Your task to perform on an android device: change timer sound Image 0: 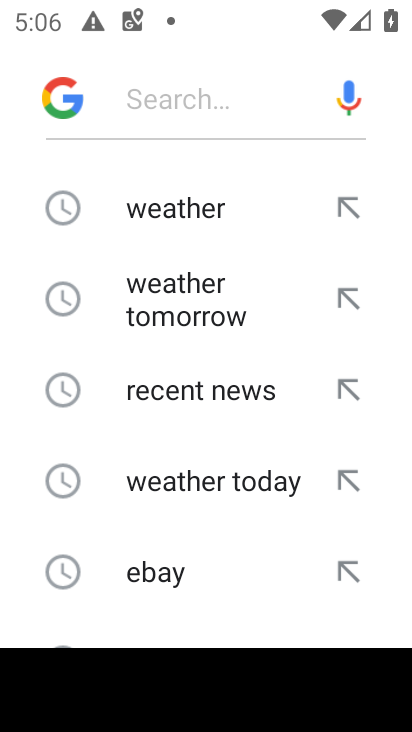
Step 0: press home button
Your task to perform on an android device: change timer sound Image 1: 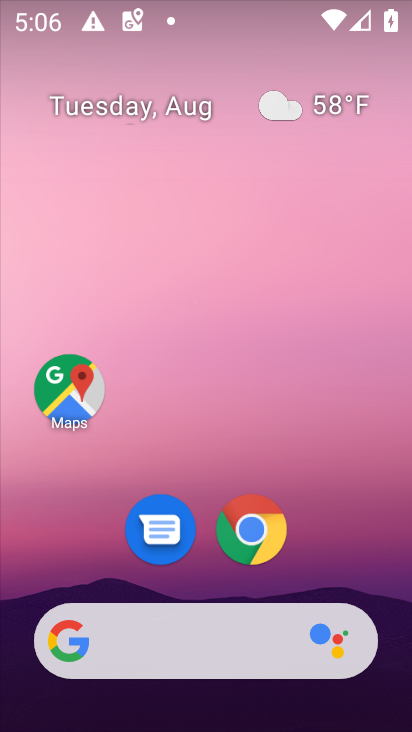
Step 1: drag from (195, 476) to (191, 144)
Your task to perform on an android device: change timer sound Image 2: 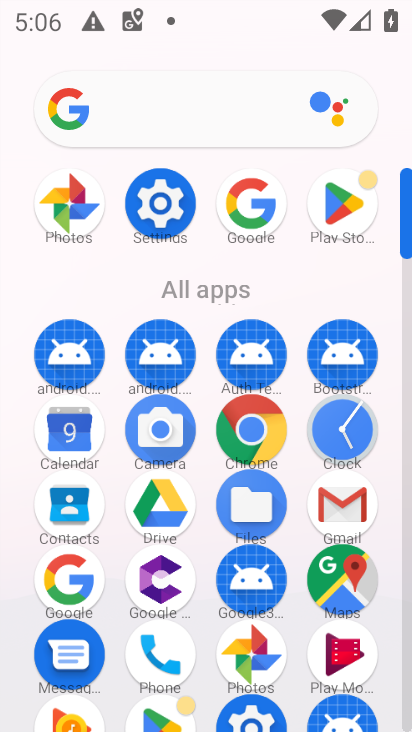
Step 2: click (333, 432)
Your task to perform on an android device: change timer sound Image 3: 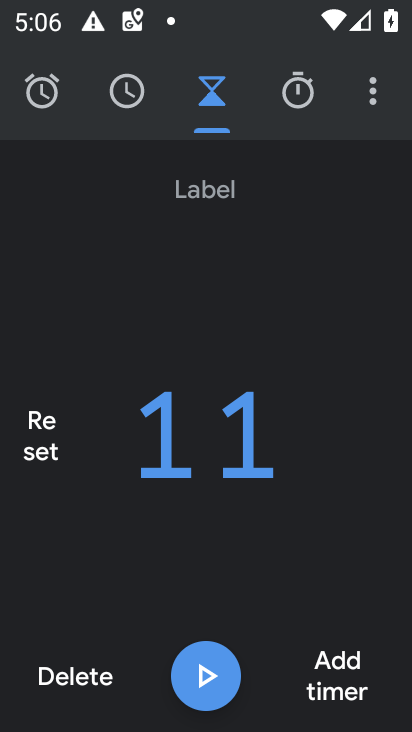
Step 3: click (374, 79)
Your task to perform on an android device: change timer sound Image 4: 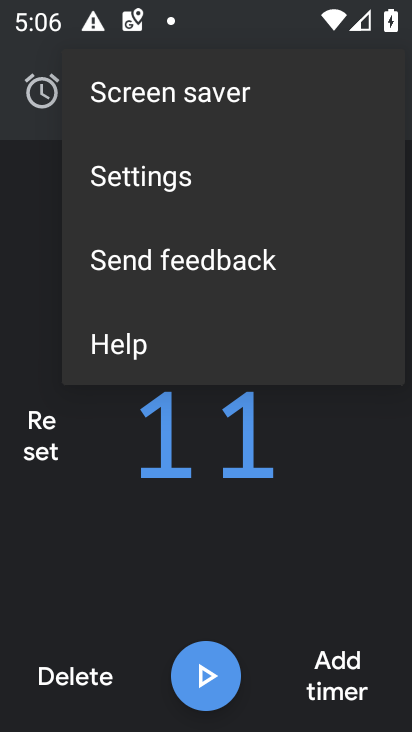
Step 4: click (203, 185)
Your task to perform on an android device: change timer sound Image 5: 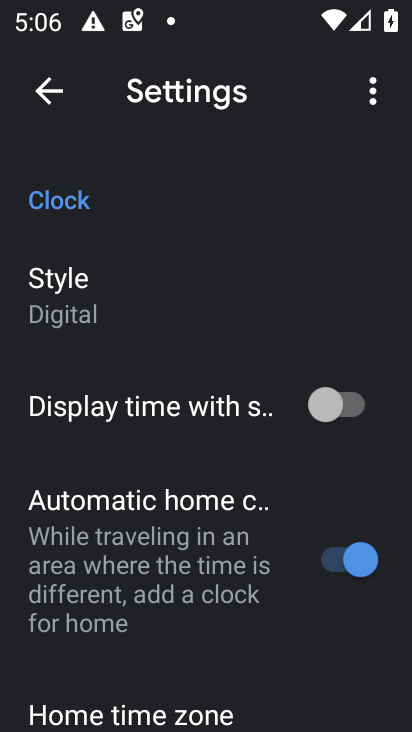
Step 5: drag from (84, 685) to (87, 255)
Your task to perform on an android device: change timer sound Image 6: 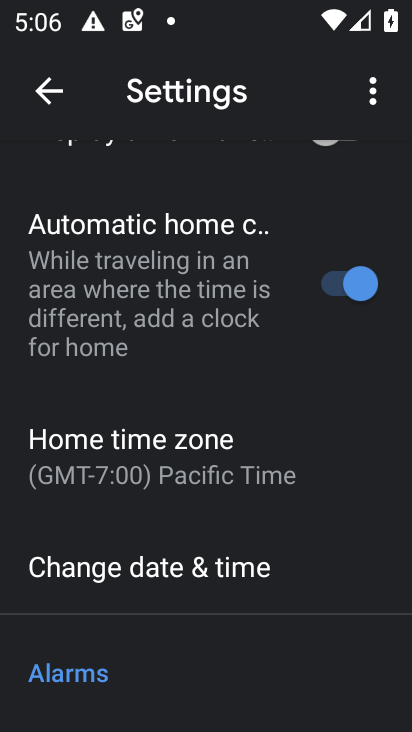
Step 6: drag from (207, 591) to (184, 121)
Your task to perform on an android device: change timer sound Image 7: 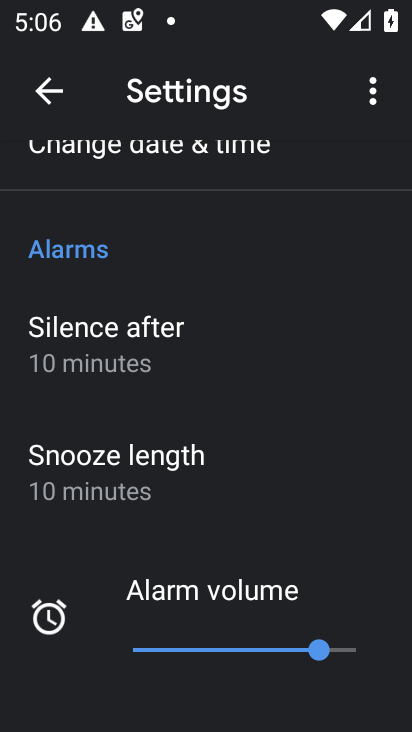
Step 7: drag from (184, 589) to (189, 249)
Your task to perform on an android device: change timer sound Image 8: 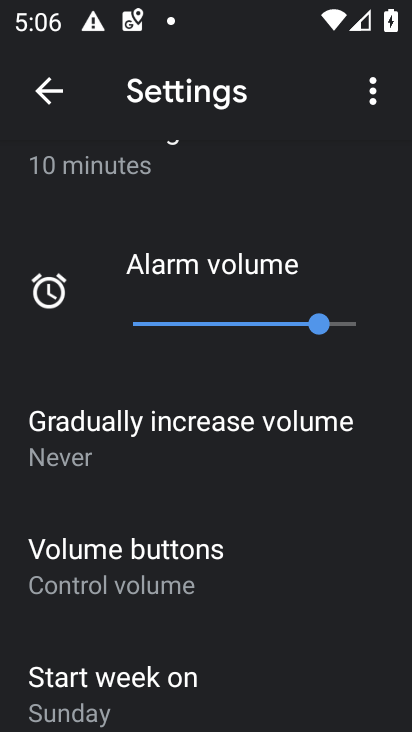
Step 8: drag from (196, 614) to (187, 183)
Your task to perform on an android device: change timer sound Image 9: 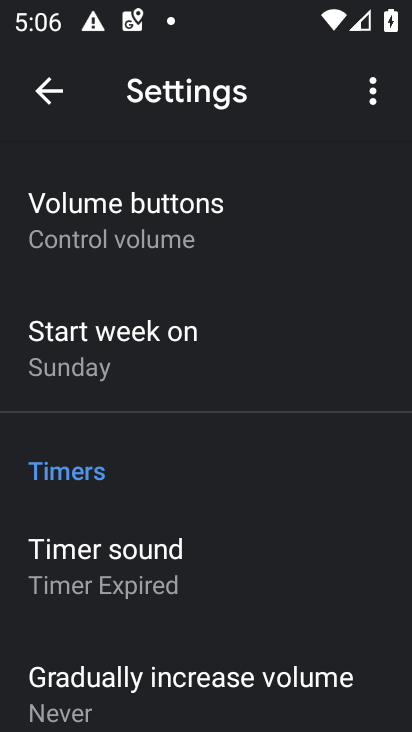
Step 9: click (159, 570)
Your task to perform on an android device: change timer sound Image 10: 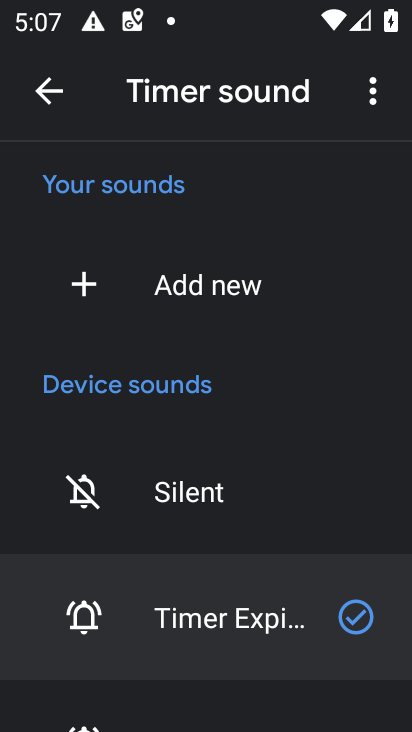
Step 10: drag from (174, 599) to (184, 221)
Your task to perform on an android device: change timer sound Image 11: 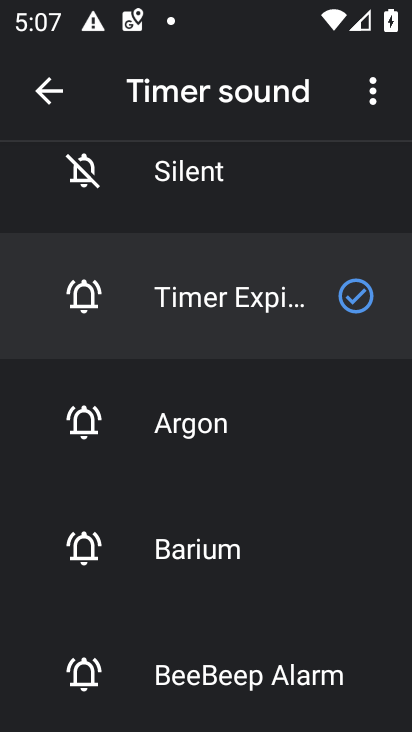
Step 11: click (210, 593)
Your task to perform on an android device: change timer sound Image 12: 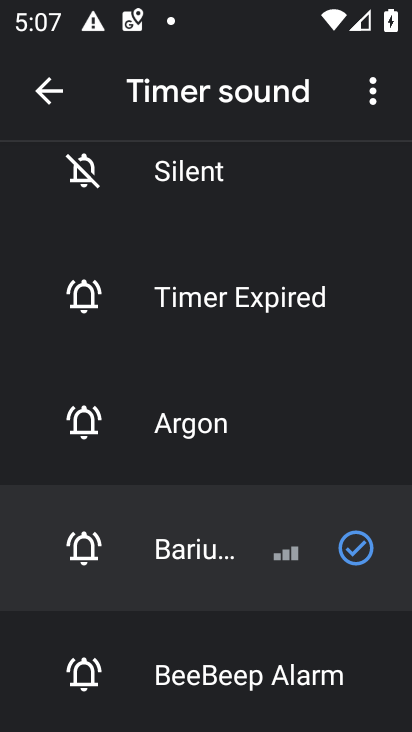
Step 12: task complete